Your task to perform on an android device: open a new tab in the chrome app Image 0: 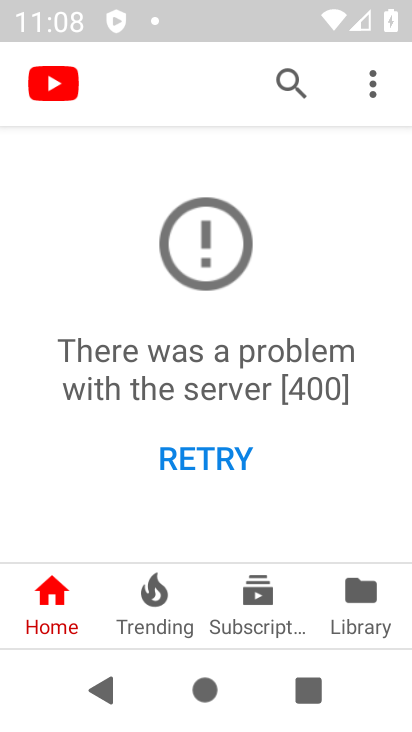
Step 0: press home button
Your task to perform on an android device: open a new tab in the chrome app Image 1: 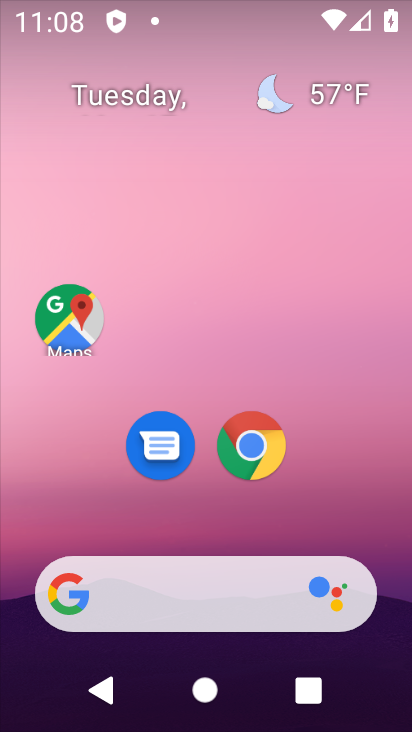
Step 1: drag from (376, 519) to (382, 222)
Your task to perform on an android device: open a new tab in the chrome app Image 2: 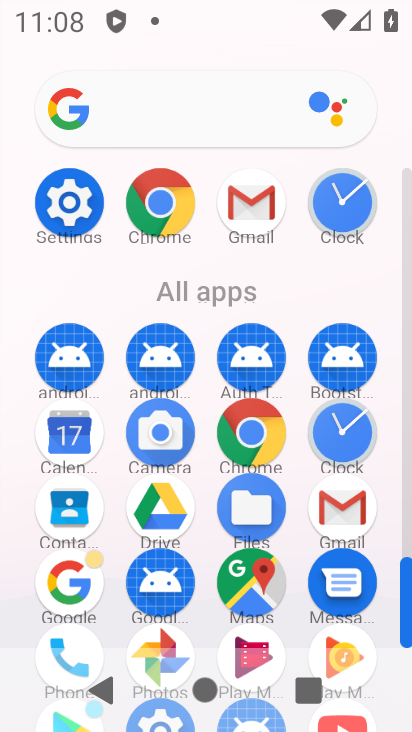
Step 2: click (261, 443)
Your task to perform on an android device: open a new tab in the chrome app Image 3: 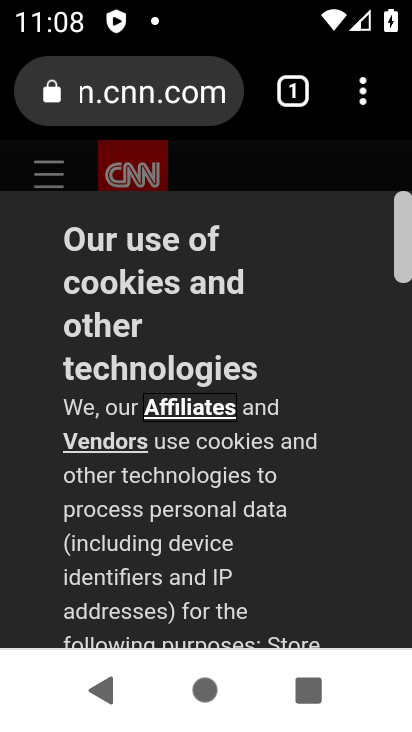
Step 3: click (362, 107)
Your task to perform on an android device: open a new tab in the chrome app Image 4: 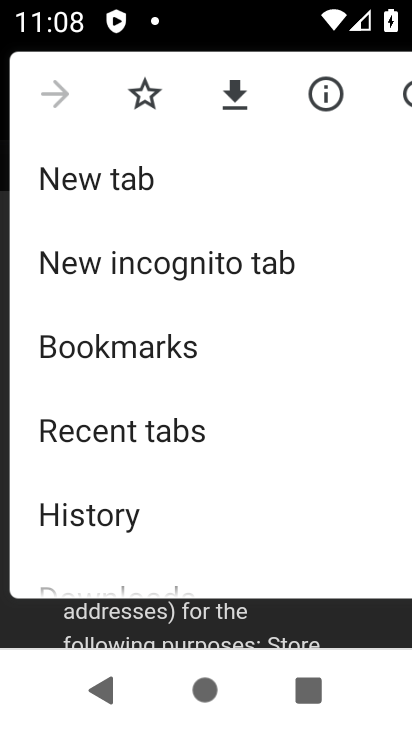
Step 4: drag from (317, 465) to (319, 341)
Your task to perform on an android device: open a new tab in the chrome app Image 5: 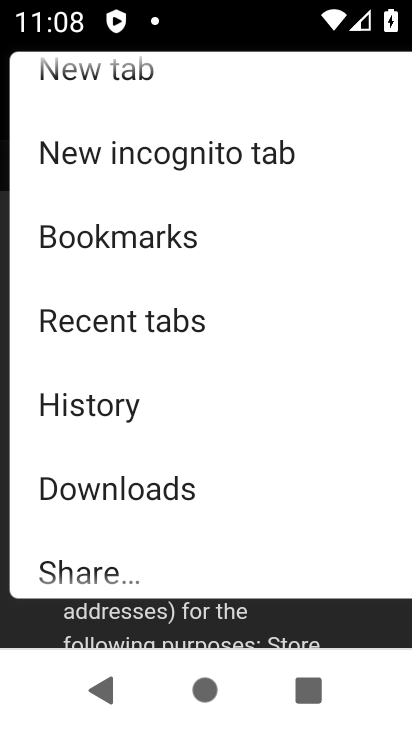
Step 5: drag from (326, 508) to (318, 371)
Your task to perform on an android device: open a new tab in the chrome app Image 6: 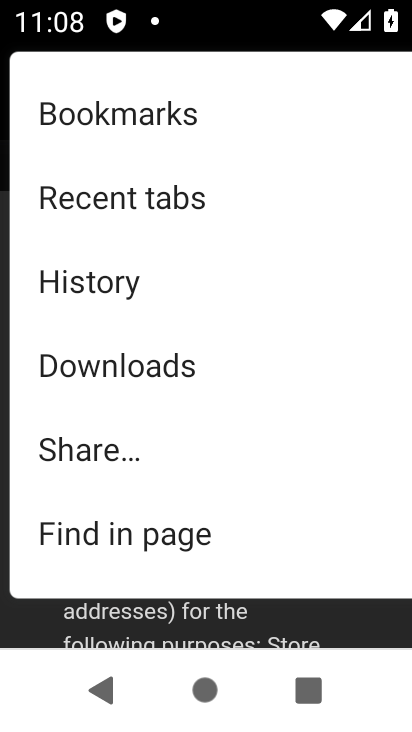
Step 6: drag from (299, 516) to (301, 342)
Your task to perform on an android device: open a new tab in the chrome app Image 7: 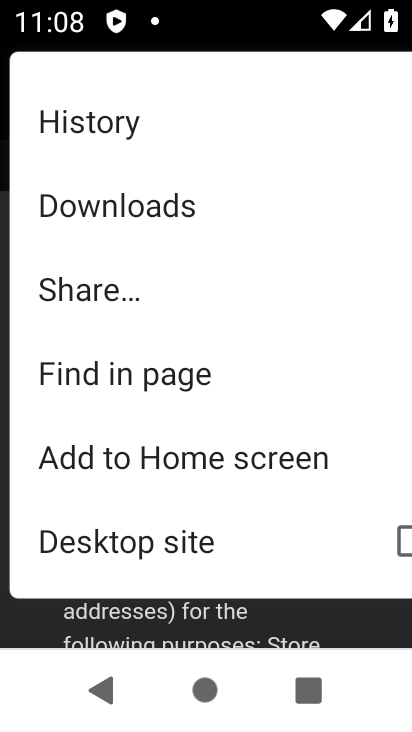
Step 7: drag from (307, 515) to (320, 356)
Your task to perform on an android device: open a new tab in the chrome app Image 8: 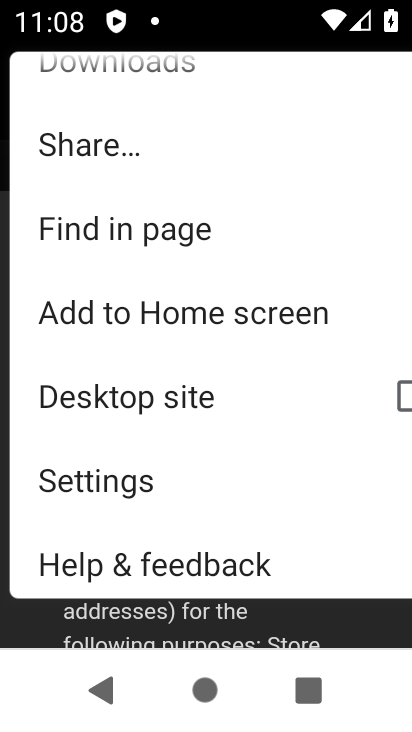
Step 8: drag from (306, 517) to (319, 371)
Your task to perform on an android device: open a new tab in the chrome app Image 9: 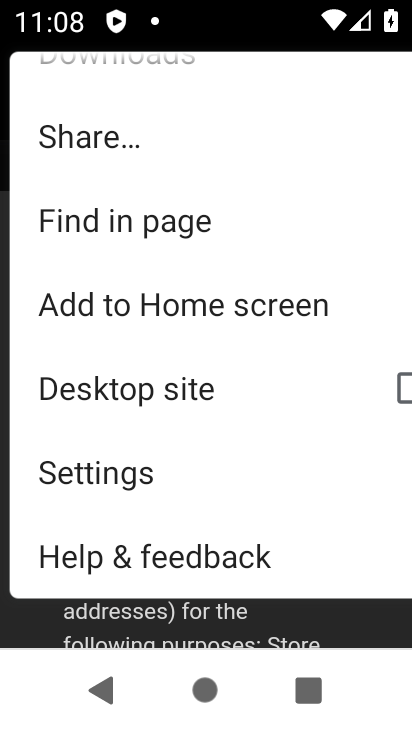
Step 9: drag from (350, 214) to (335, 370)
Your task to perform on an android device: open a new tab in the chrome app Image 10: 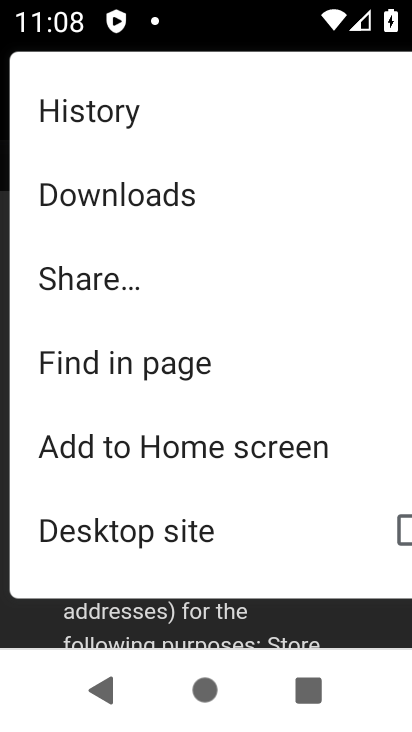
Step 10: drag from (310, 210) to (301, 363)
Your task to perform on an android device: open a new tab in the chrome app Image 11: 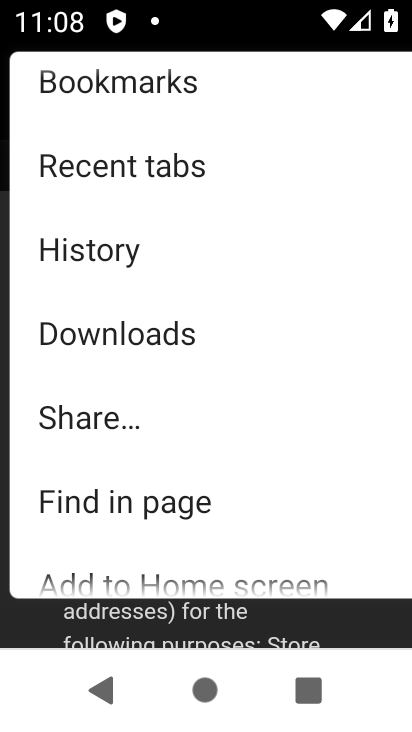
Step 11: drag from (293, 231) to (290, 338)
Your task to perform on an android device: open a new tab in the chrome app Image 12: 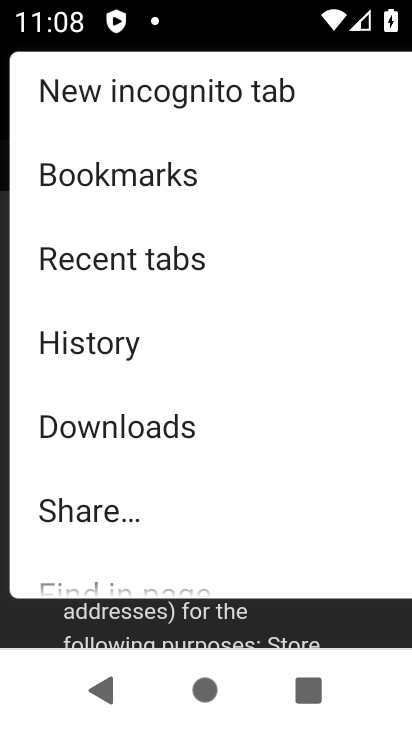
Step 12: drag from (297, 199) to (295, 322)
Your task to perform on an android device: open a new tab in the chrome app Image 13: 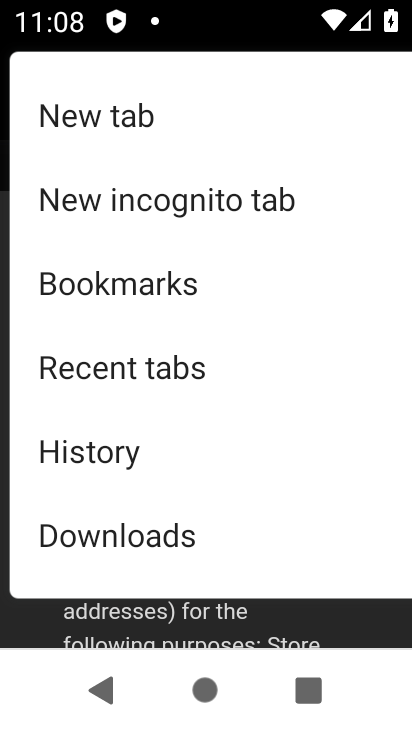
Step 13: drag from (323, 161) to (325, 319)
Your task to perform on an android device: open a new tab in the chrome app Image 14: 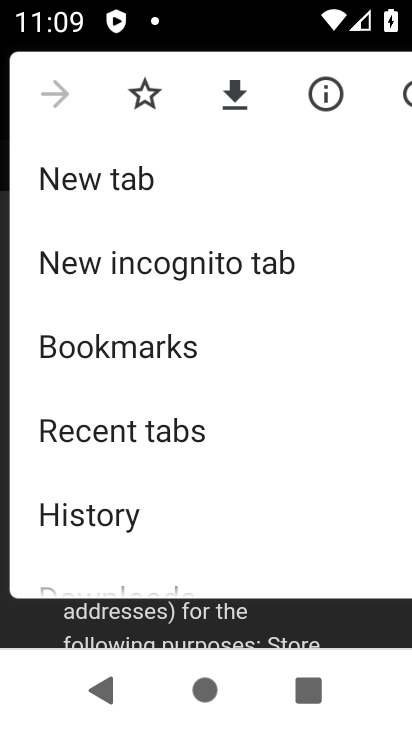
Step 14: click (162, 180)
Your task to perform on an android device: open a new tab in the chrome app Image 15: 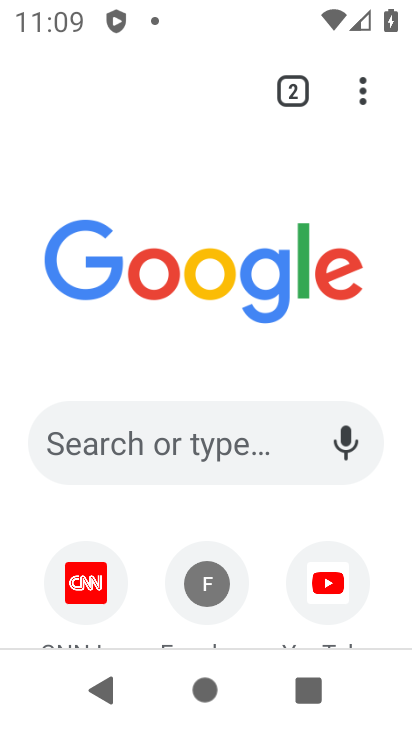
Step 15: task complete